Your task to perform on an android device: What's the weather? Image 0: 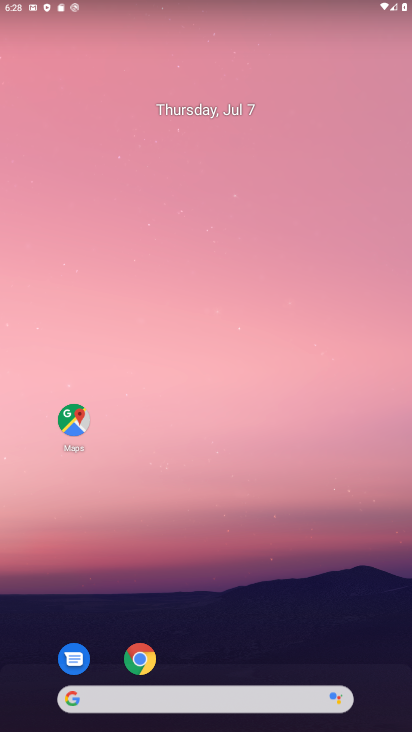
Step 0: drag from (378, 674) to (263, 0)
Your task to perform on an android device: What's the weather? Image 1: 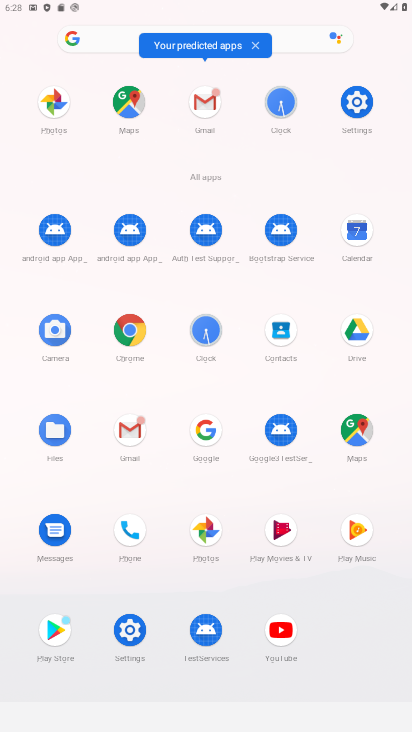
Step 1: click (203, 433)
Your task to perform on an android device: What's the weather? Image 2: 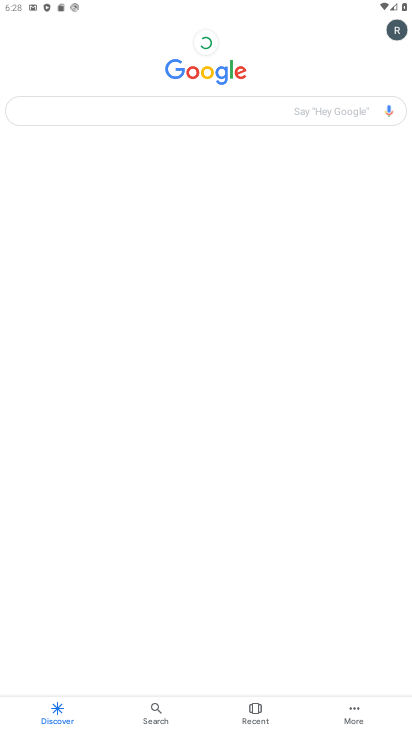
Step 2: click (231, 117)
Your task to perform on an android device: What's the weather? Image 3: 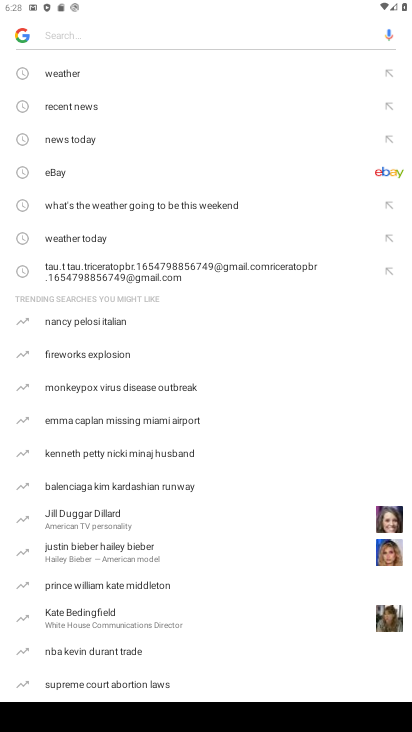
Step 3: type "What's the weather?"
Your task to perform on an android device: What's the weather? Image 4: 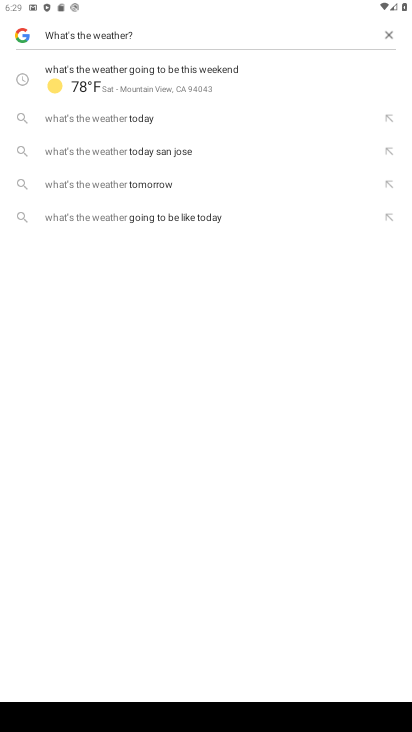
Step 4: task complete